Your task to perform on an android device: Go to network settings Image 0: 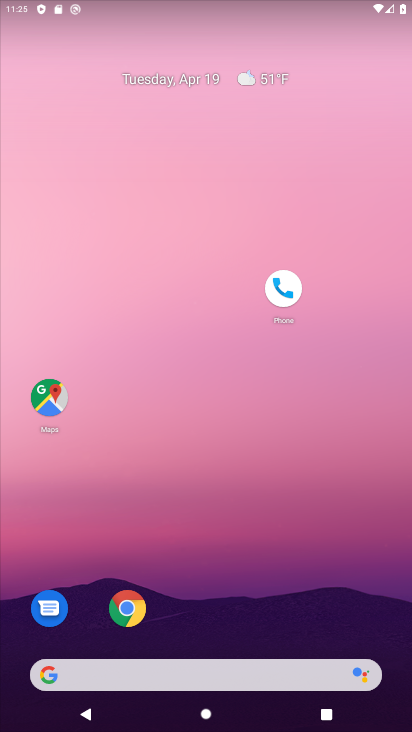
Step 0: drag from (178, 558) to (304, 14)
Your task to perform on an android device: Go to network settings Image 1: 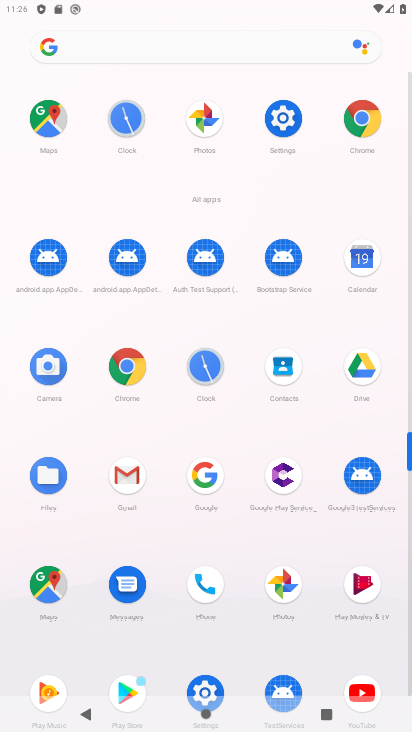
Step 1: click (282, 117)
Your task to perform on an android device: Go to network settings Image 2: 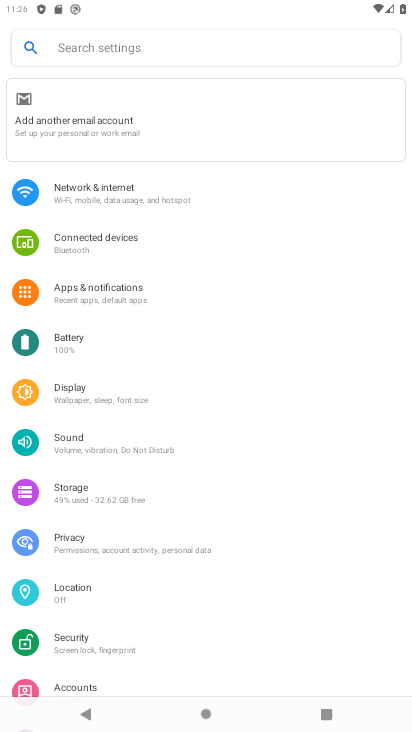
Step 2: click (72, 191)
Your task to perform on an android device: Go to network settings Image 3: 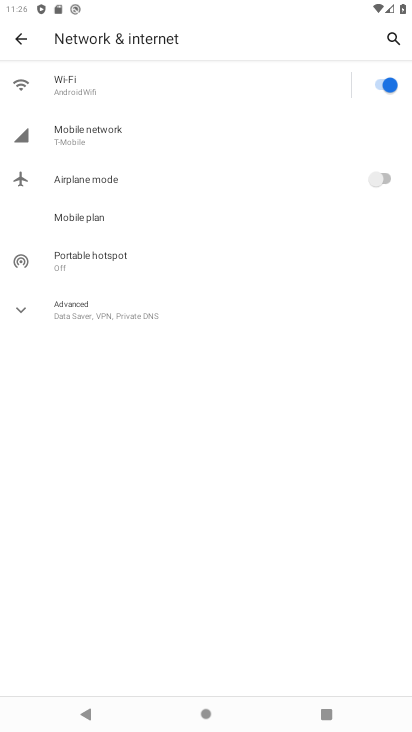
Step 3: click (69, 134)
Your task to perform on an android device: Go to network settings Image 4: 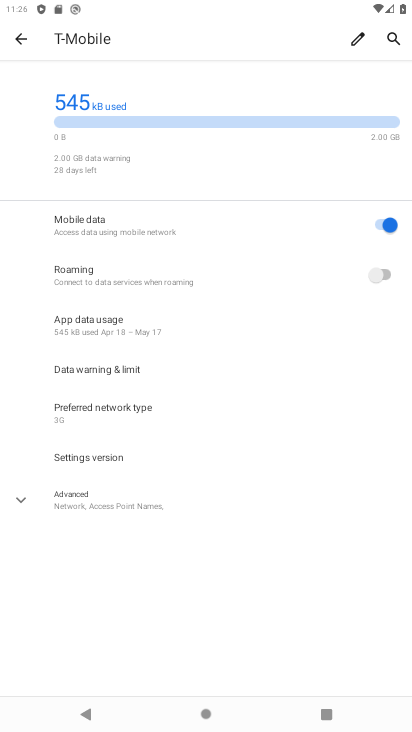
Step 4: task complete